Your task to perform on an android device: Go to Maps Image 0: 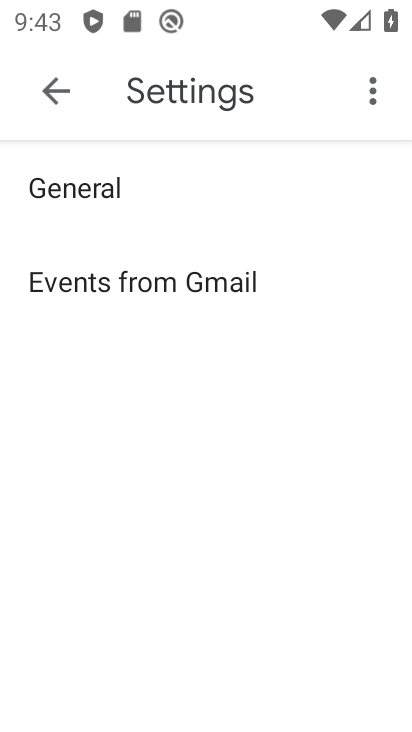
Step 0: press back button
Your task to perform on an android device: Go to Maps Image 1: 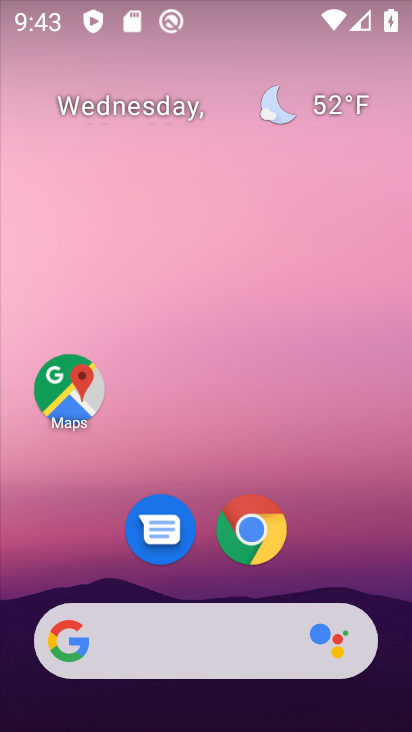
Step 1: click (71, 407)
Your task to perform on an android device: Go to Maps Image 2: 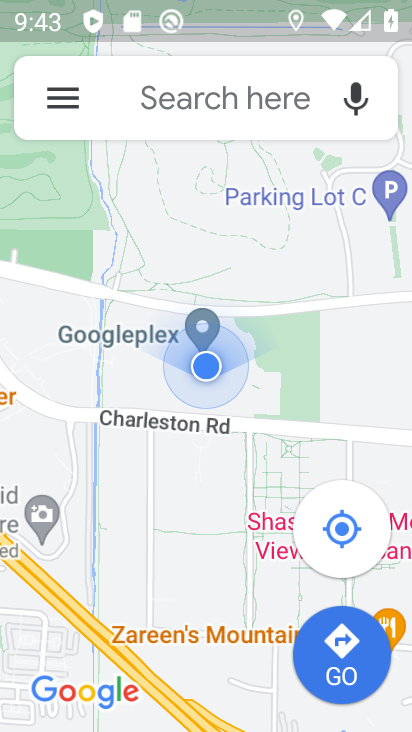
Step 2: task complete